Your task to perform on an android device: turn on notifications settings in the gmail app Image 0: 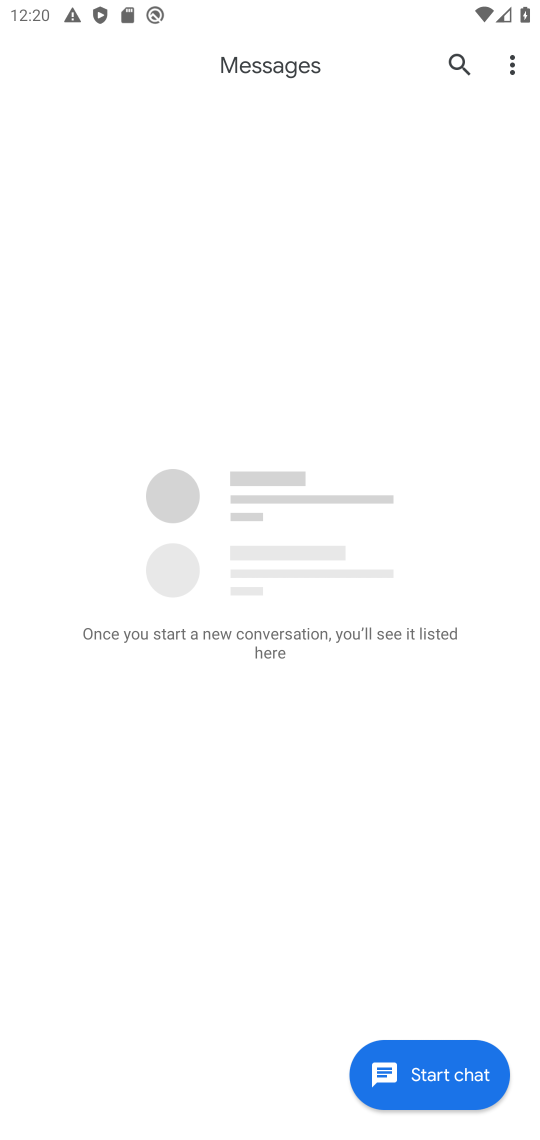
Step 0: press home button
Your task to perform on an android device: turn on notifications settings in the gmail app Image 1: 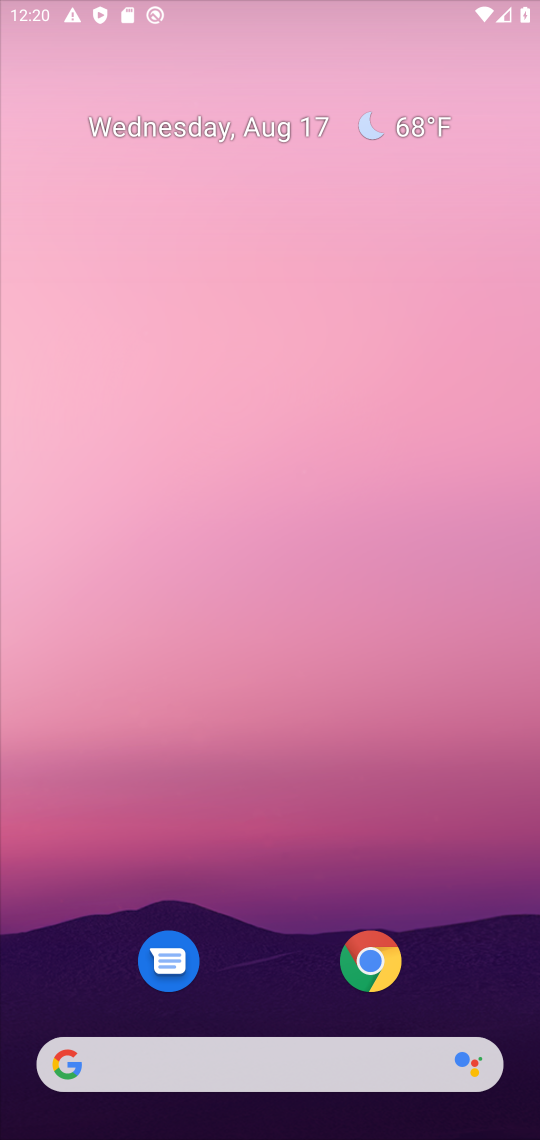
Step 1: drag from (315, 884) to (455, 105)
Your task to perform on an android device: turn on notifications settings in the gmail app Image 2: 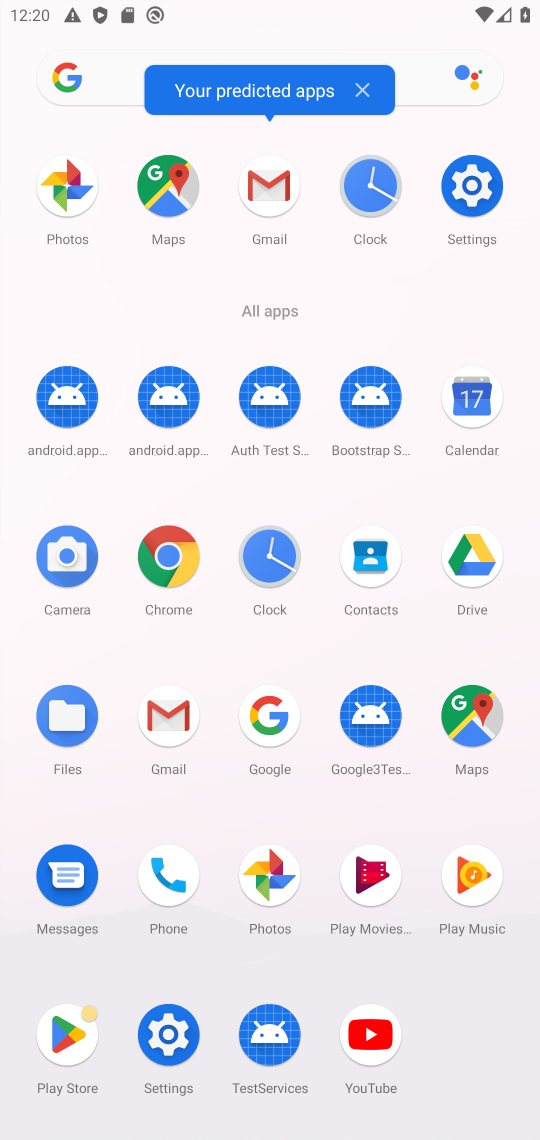
Step 2: click (274, 222)
Your task to perform on an android device: turn on notifications settings in the gmail app Image 3: 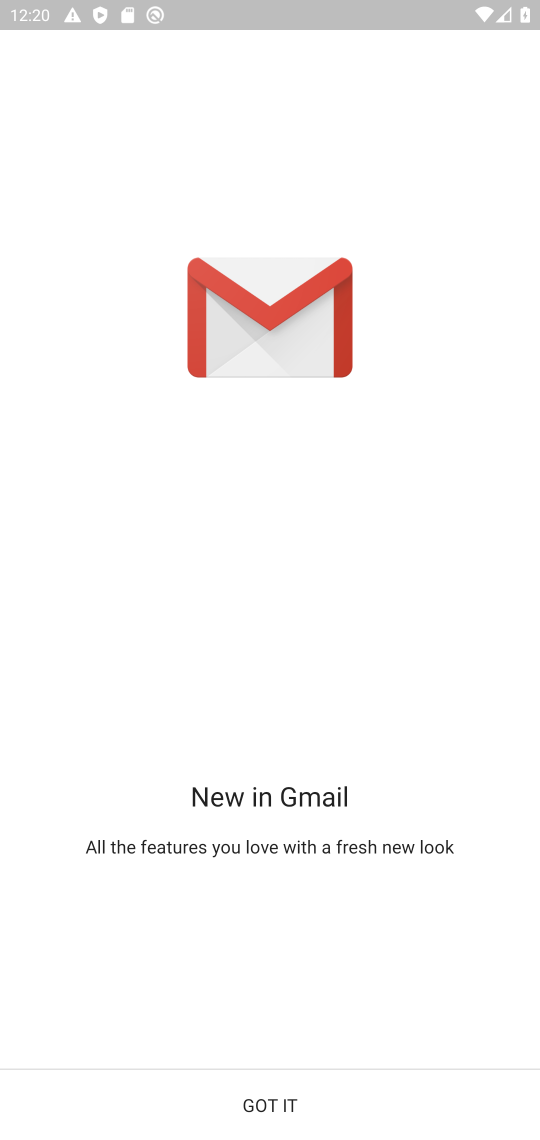
Step 3: click (305, 1085)
Your task to perform on an android device: turn on notifications settings in the gmail app Image 4: 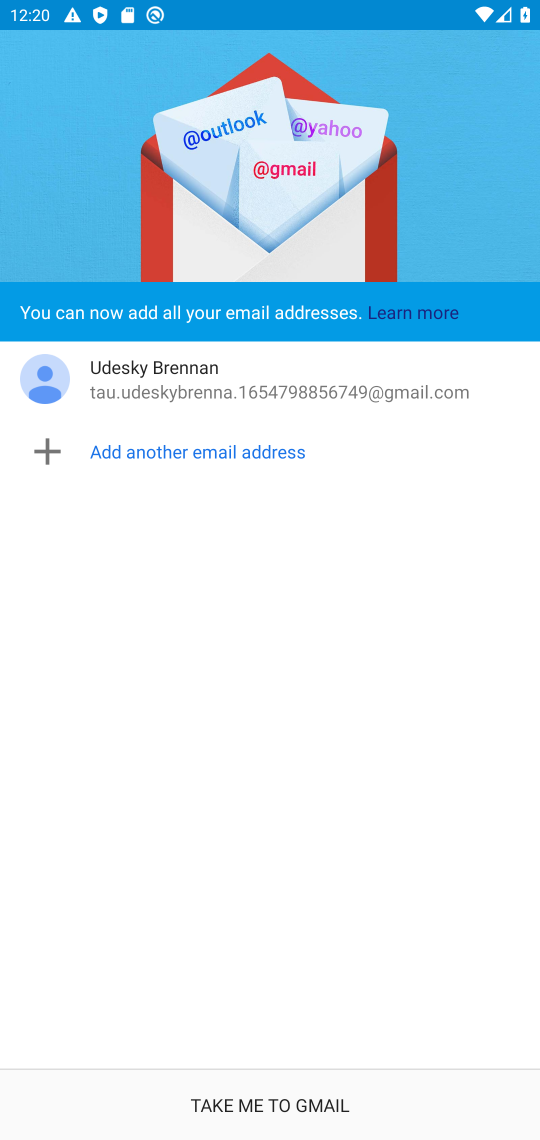
Step 4: click (273, 1102)
Your task to perform on an android device: turn on notifications settings in the gmail app Image 5: 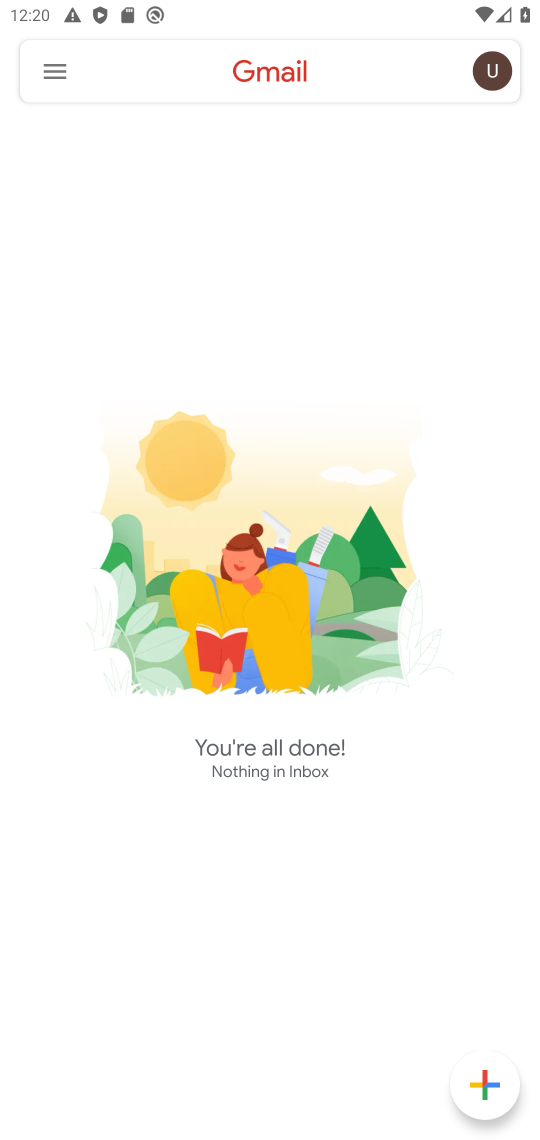
Step 5: click (51, 80)
Your task to perform on an android device: turn on notifications settings in the gmail app Image 6: 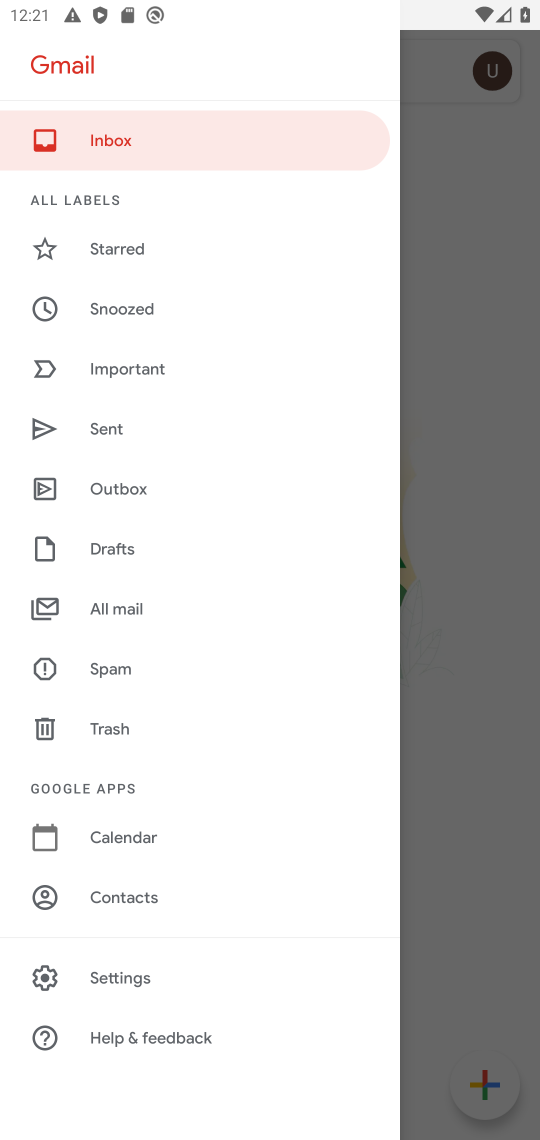
Step 6: click (128, 973)
Your task to perform on an android device: turn on notifications settings in the gmail app Image 7: 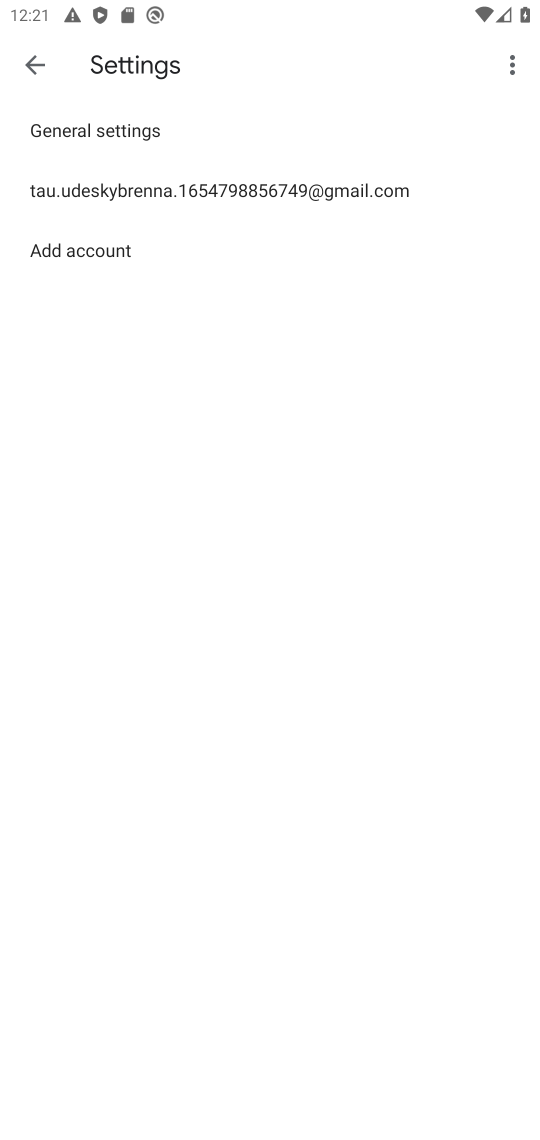
Step 7: click (183, 182)
Your task to perform on an android device: turn on notifications settings in the gmail app Image 8: 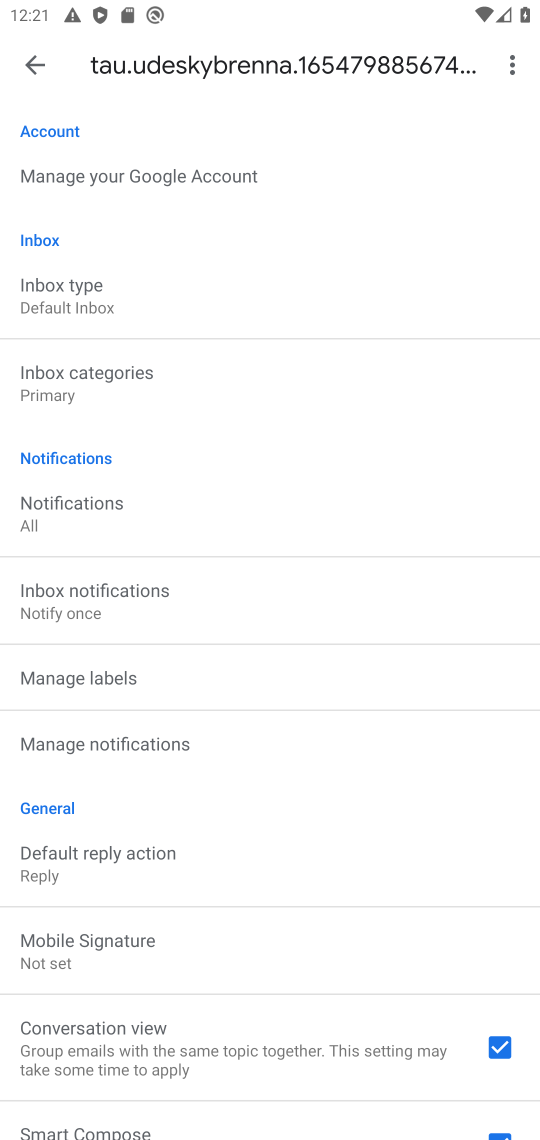
Step 8: click (38, 77)
Your task to perform on an android device: turn on notifications settings in the gmail app Image 9: 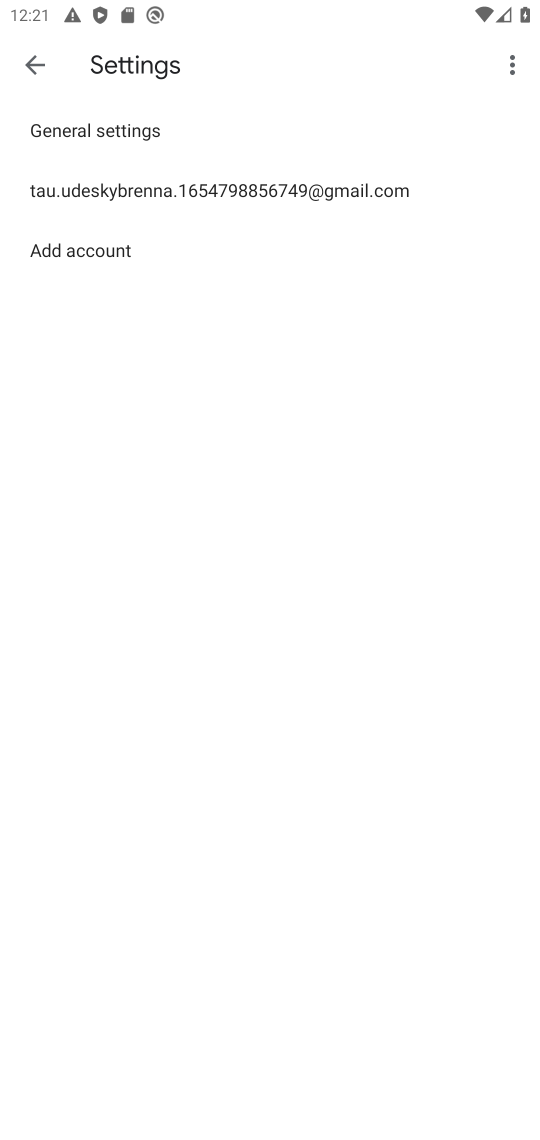
Step 9: click (152, 122)
Your task to perform on an android device: turn on notifications settings in the gmail app Image 10: 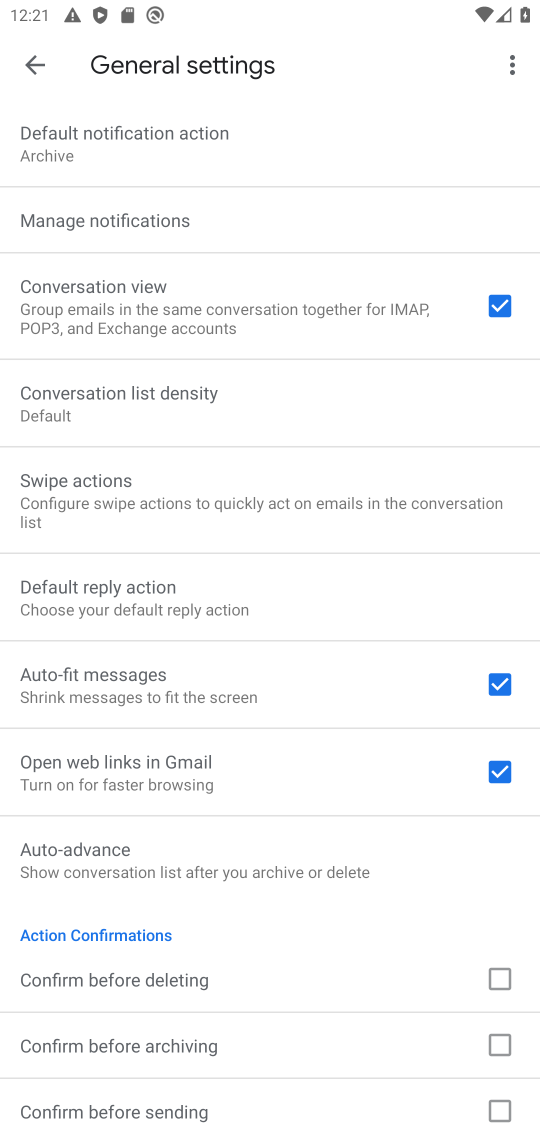
Step 10: click (144, 215)
Your task to perform on an android device: turn on notifications settings in the gmail app Image 11: 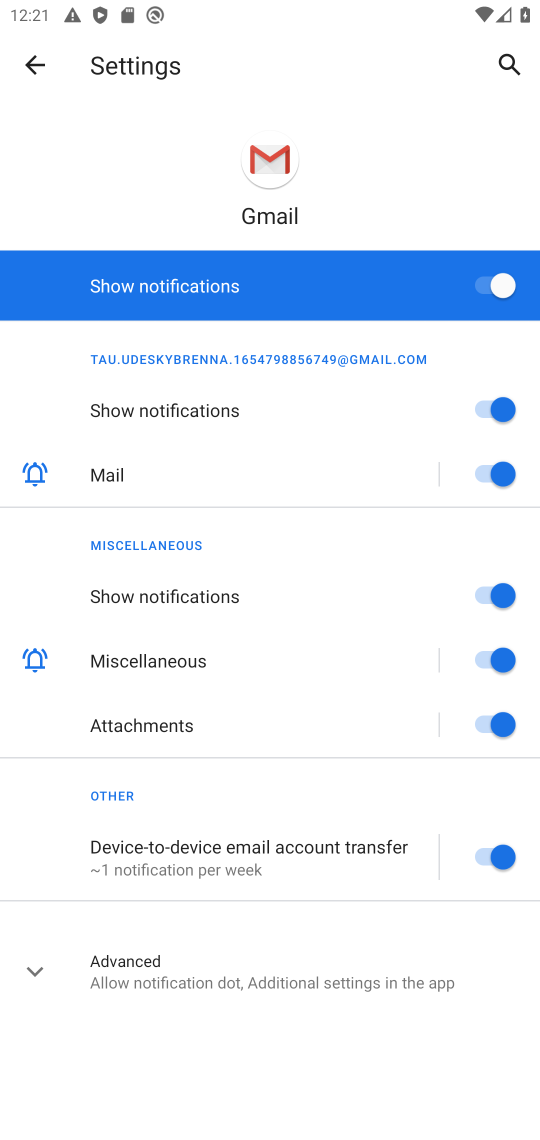
Step 11: task complete